Your task to perform on an android device: change the clock display to show seconds Image 0: 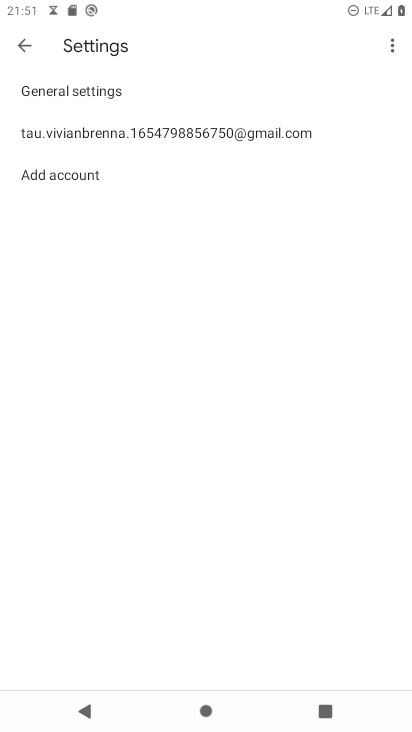
Step 0: press home button
Your task to perform on an android device: change the clock display to show seconds Image 1: 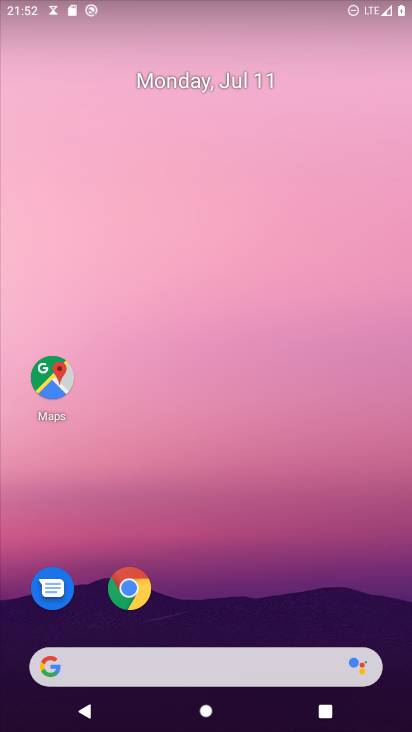
Step 1: drag from (211, 636) to (118, 167)
Your task to perform on an android device: change the clock display to show seconds Image 2: 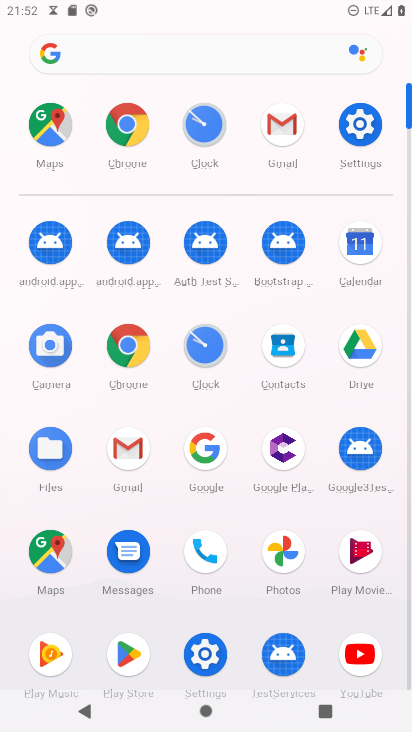
Step 2: click (211, 337)
Your task to perform on an android device: change the clock display to show seconds Image 3: 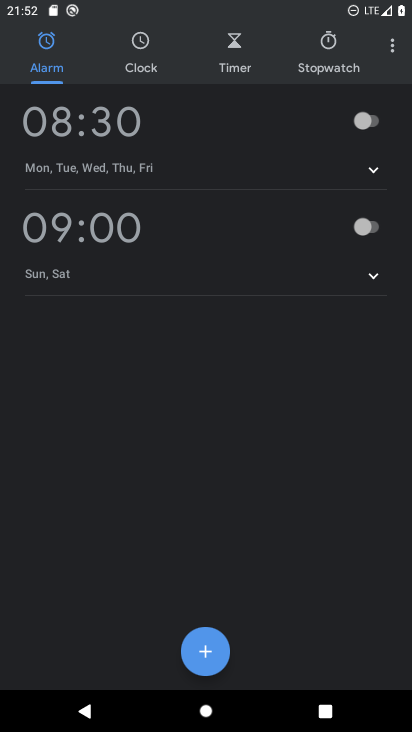
Step 3: click (392, 47)
Your task to perform on an android device: change the clock display to show seconds Image 4: 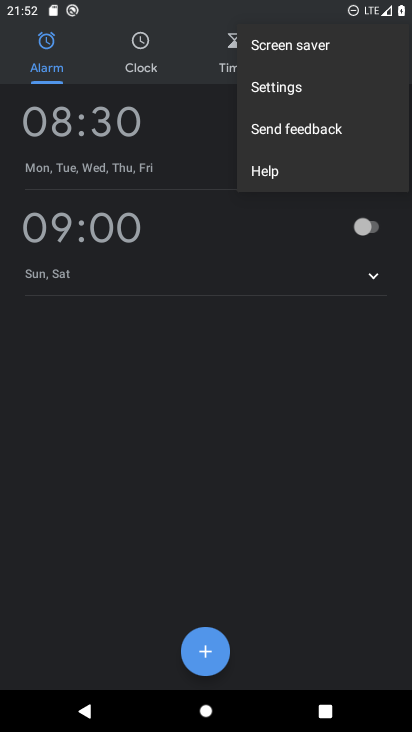
Step 4: click (291, 98)
Your task to perform on an android device: change the clock display to show seconds Image 5: 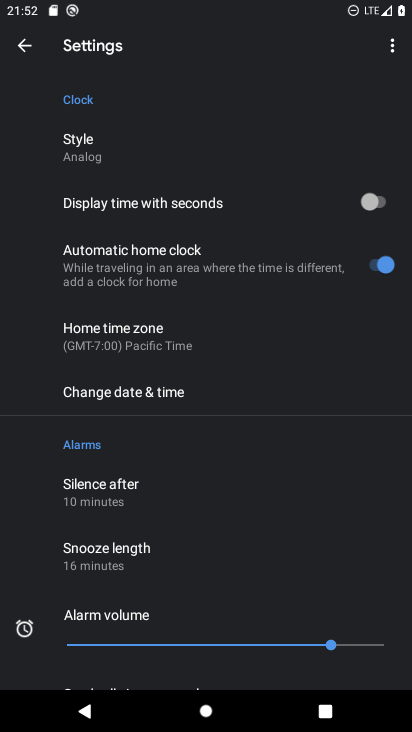
Step 5: click (374, 202)
Your task to perform on an android device: change the clock display to show seconds Image 6: 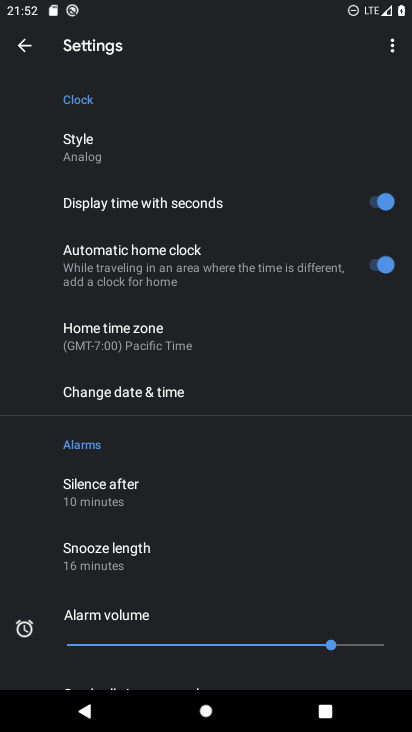
Step 6: task complete